Your task to perform on an android device: Open display settings Image 0: 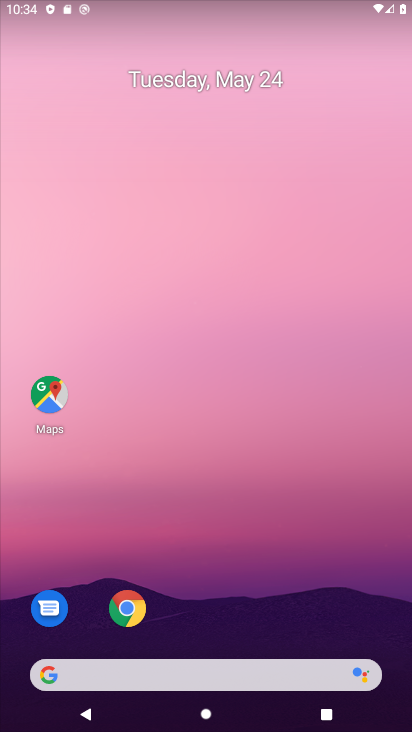
Step 0: drag from (373, 576) to (308, 41)
Your task to perform on an android device: Open display settings Image 1: 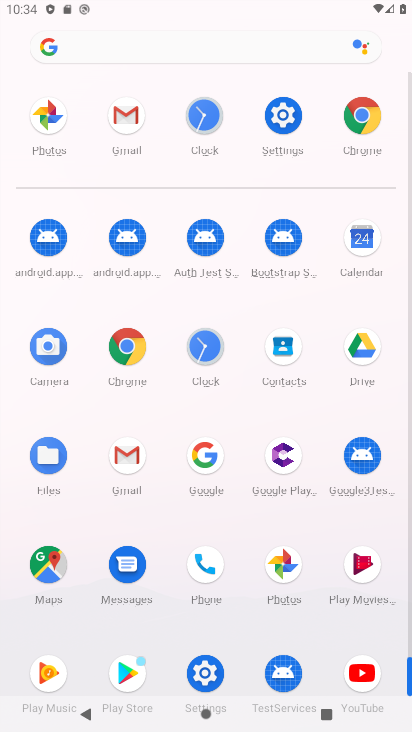
Step 1: click (205, 672)
Your task to perform on an android device: Open display settings Image 2: 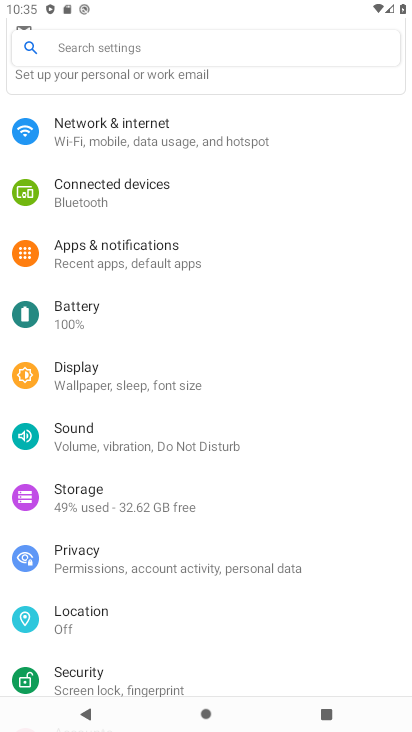
Step 2: click (73, 369)
Your task to perform on an android device: Open display settings Image 3: 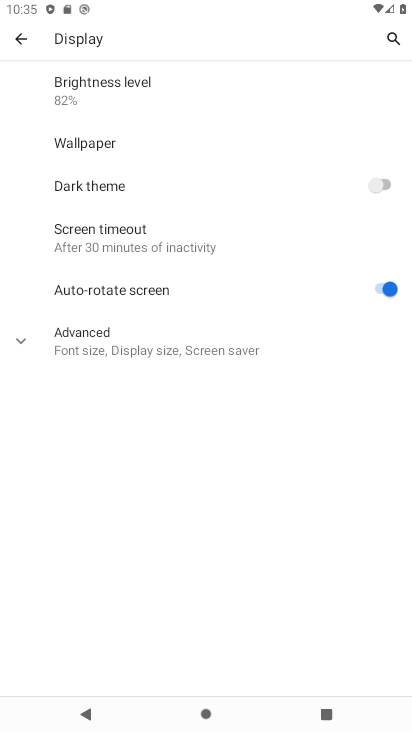
Step 3: click (18, 335)
Your task to perform on an android device: Open display settings Image 4: 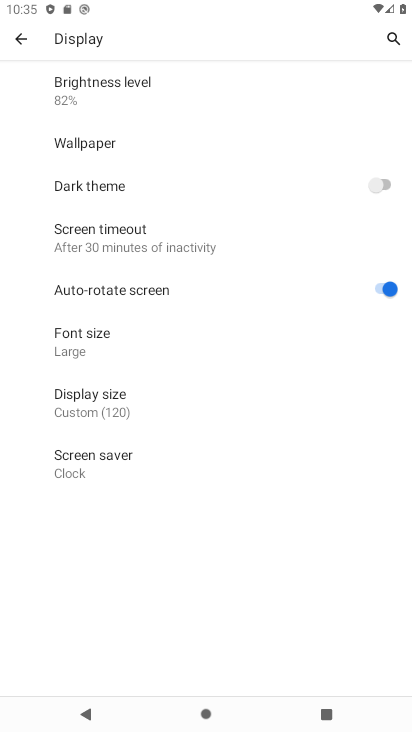
Step 4: task complete